Your task to perform on an android device: turn notification dots off Image 0: 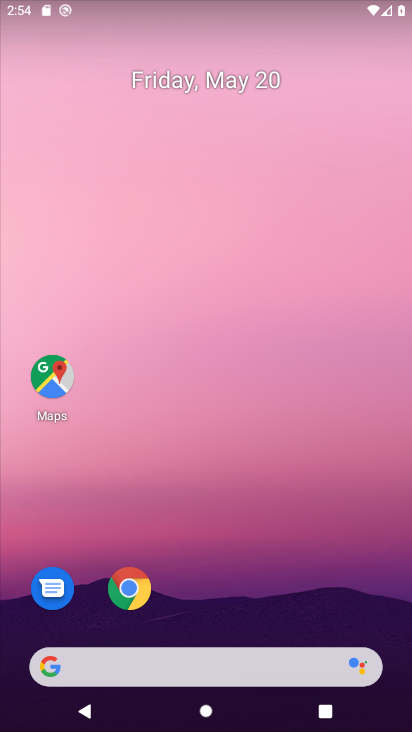
Step 0: drag from (287, 597) to (326, 62)
Your task to perform on an android device: turn notification dots off Image 1: 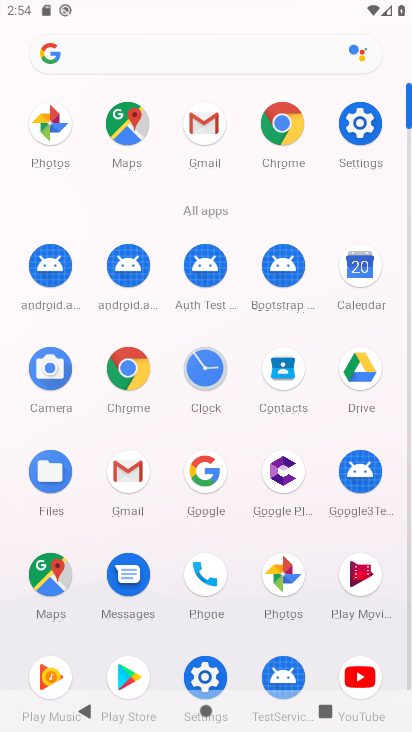
Step 1: click (357, 122)
Your task to perform on an android device: turn notification dots off Image 2: 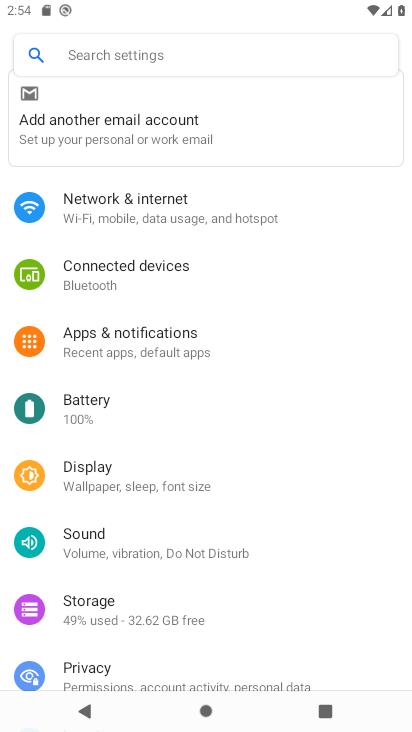
Step 2: click (141, 348)
Your task to perform on an android device: turn notification dots off Image 3: 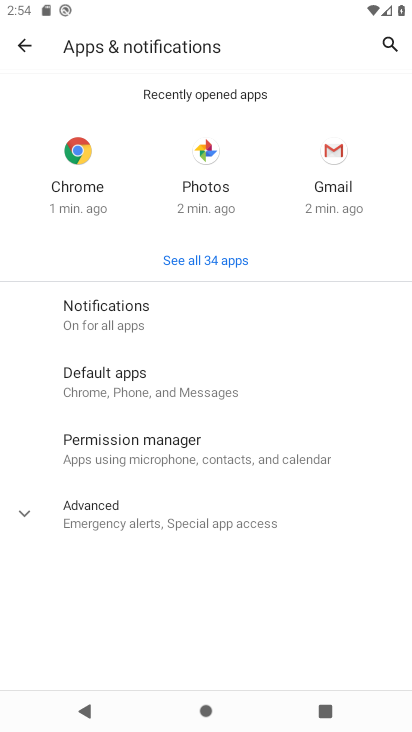
Step 3: click (127, 314)
Your task to perform on an android device: turn notification dots off Image 4: 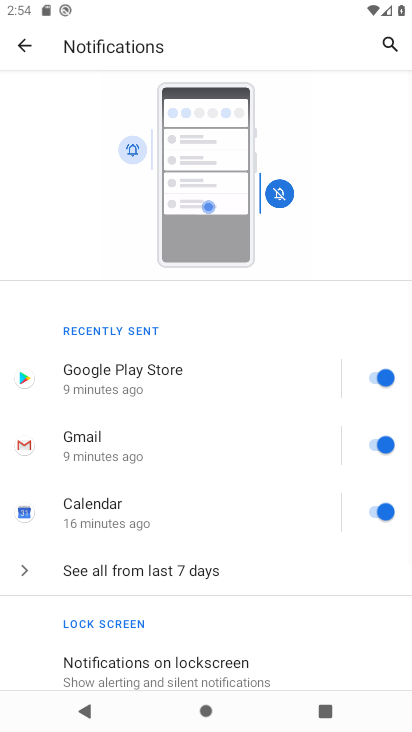
Step 4: drag from (258, 667) to (322, 130)
Your task to perform on an android device: turn notification dots off Image 5: 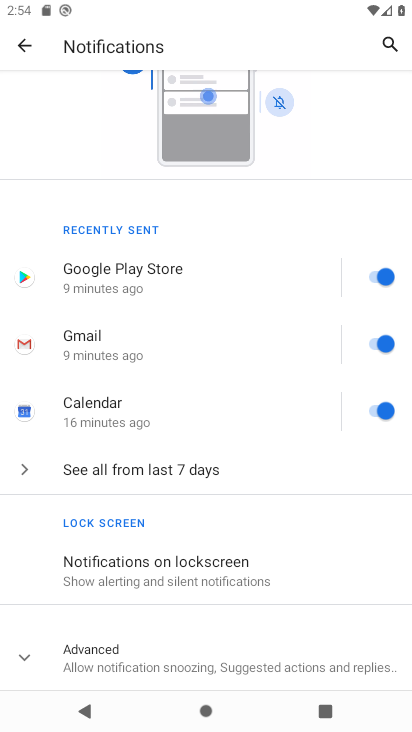
Step 5: click (191, 560)
Your task to perform on an android device: turn notification dots off Image 6: 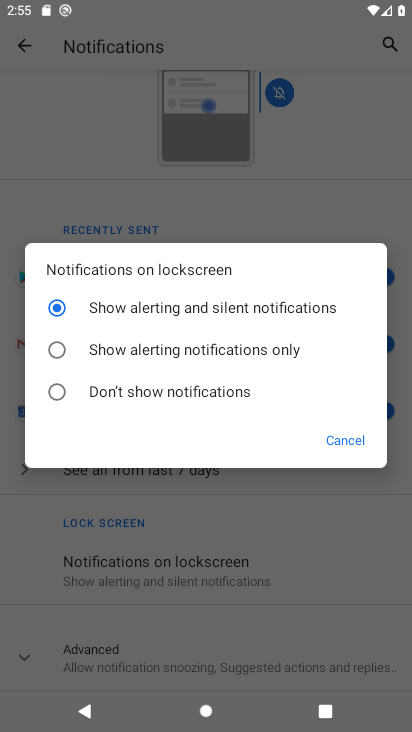
Step 6: click (147, 399)
Your task to perform on an android device: turn notification dots off Image 7: 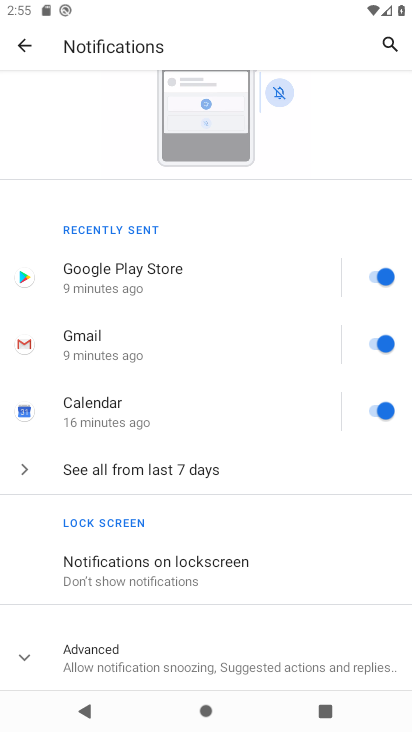
Step 7: click (161, 669)
Your task to perform on an android device: turn notification dots off Image 8: 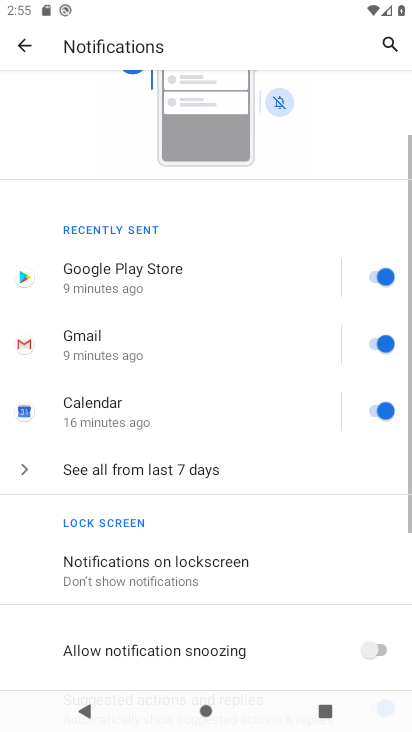
Step 8: drag from (196, 596) to (302, 192)
Your task to perform on an android device: turn notification dots off Image 9: 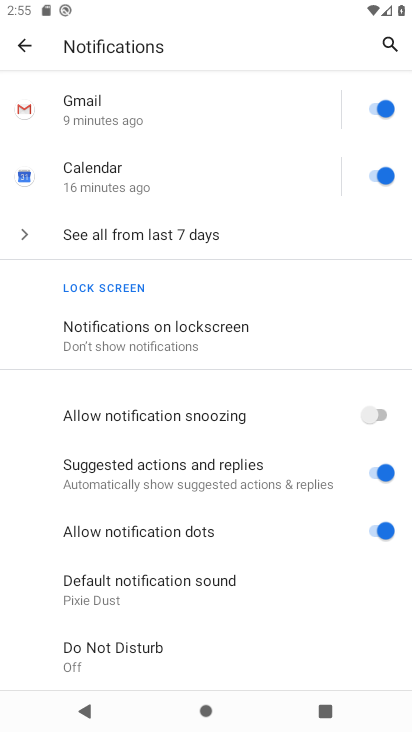
Step 9: click (361, 524)
Your task to perform on an android device: turn notification dots off Image 10: 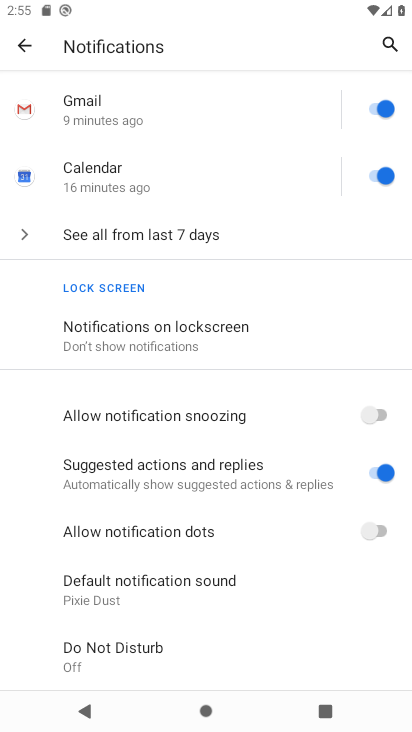
Step 10: task complete